Your task to perform on an android device: Go to display settings Image 0: 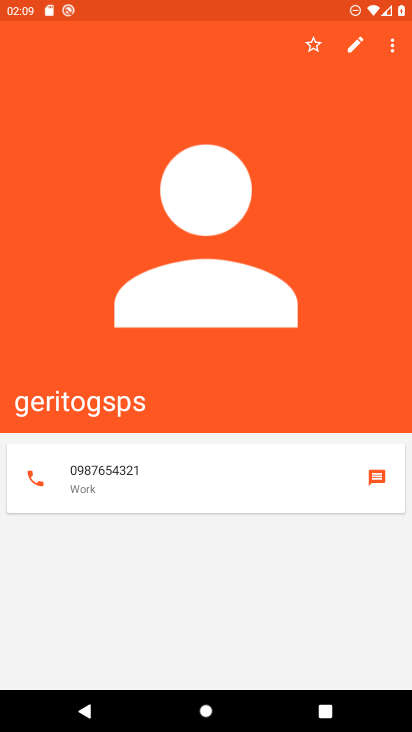
Step 0: press home button
Your task to perform on an android device: Go to display settings Image 1: 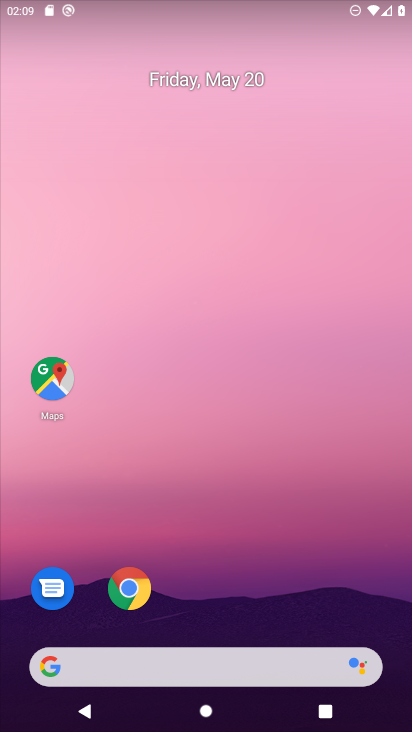
Step 1: drag from (391, 636) to (305, 96)
Your task to perform on an android device: Go to display settings Image 2: 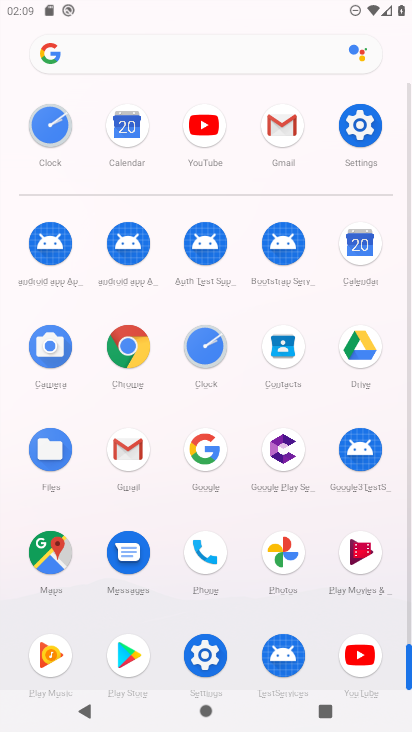
Step 2: click (205, 655)
Your task to perform on an android device: Go to display settings Image 3: 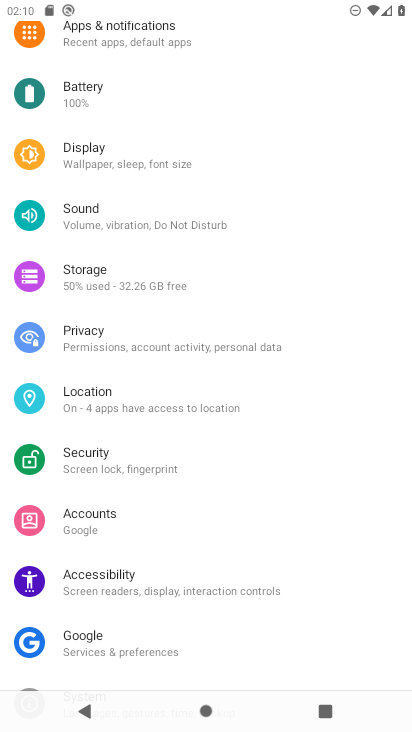
Step 3: click (89, 158)
Your task to perform on an android device: Go to display settings Image 4: 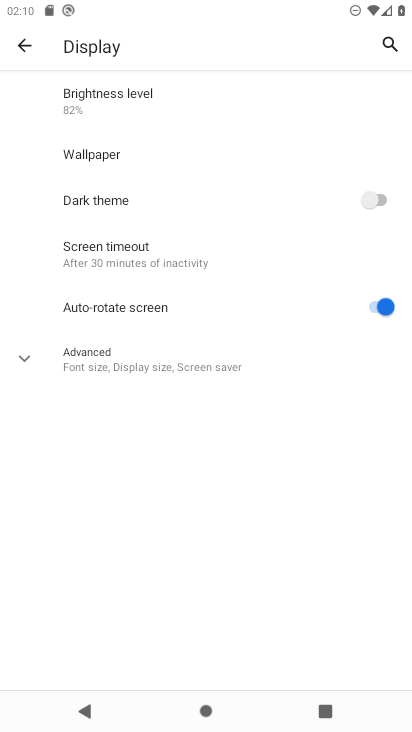
Step 4: click (28, 358)
Your task to perform on an android device: Go to display settings Image 5: 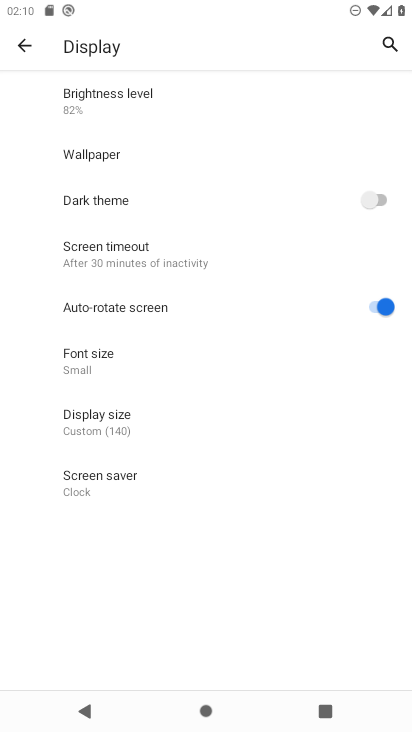
Step 5: task complete